Your task to perform on an android device: Open the web browser Image 0: 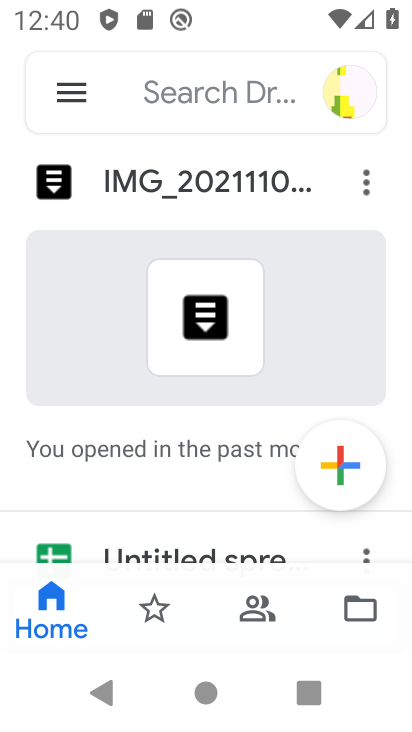
Step 0: press home button
Your task to perform on an android device: Open the web browser Image 1: 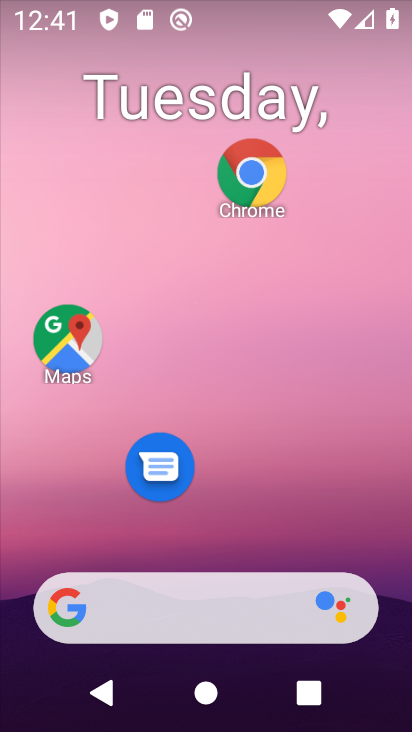
Step 1: drag from (343, 538) to (274, 46)
Your task to perform on an android device: Open the web browser Image 2: 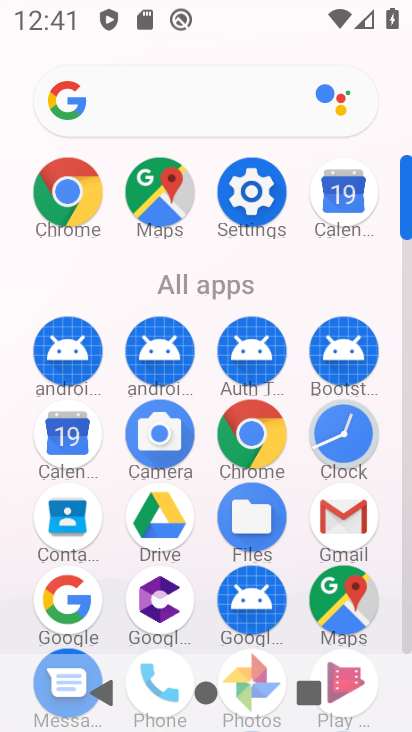
Step 2: click (242, 429)
Your task to perform on an android device: Open the web browser Image 3: 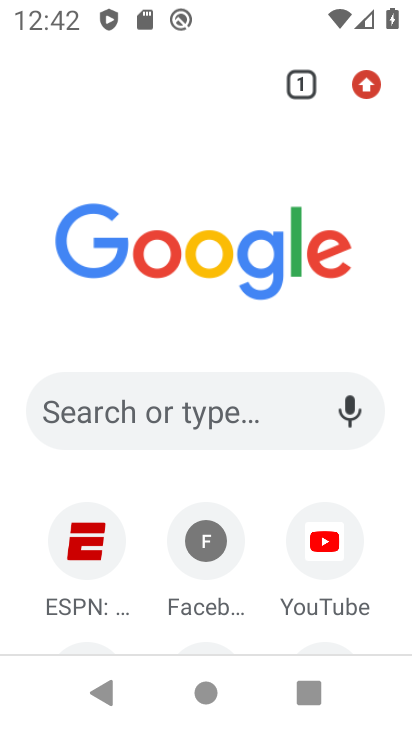
Step 3: task complete